Your task to perform on an android device: delete browsing data in the chrome app Image 0: 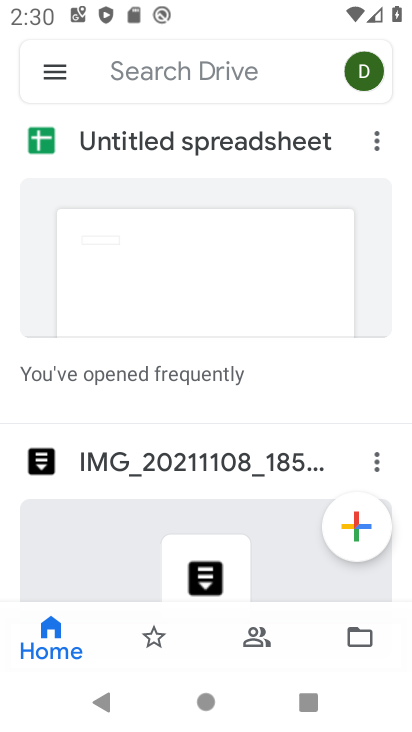
Step 0: press home button
Your task to perform on an android device: delete browsing data in the chrome app Image 1: 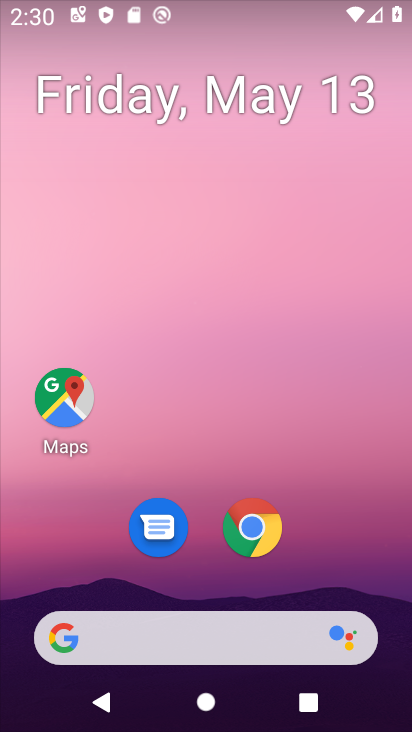
Step 1: click (254, 525)
Your task to perform on an android device: delete browsing data in the chrome app Image 2: 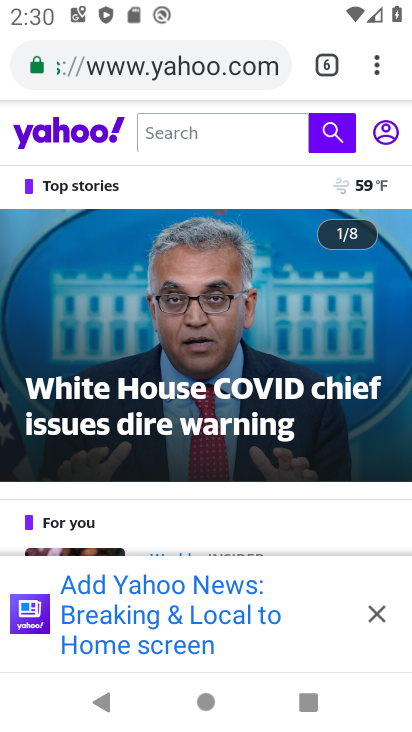
Step 2: click (363, 50)
Your task to perform on an android device: delete browsing data in the chrome app Image 3: 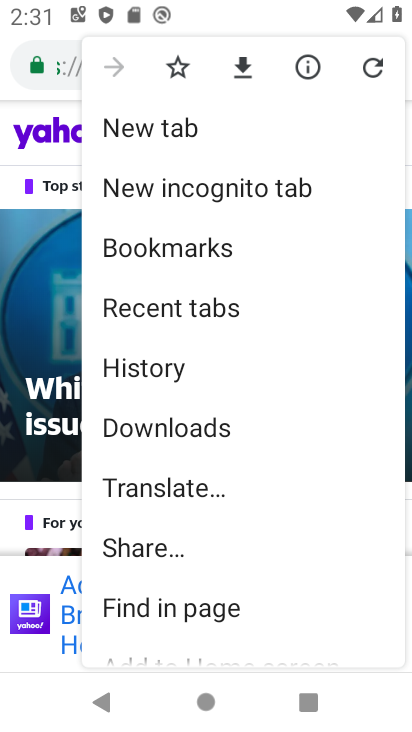
Step 3: drag from (189, 618) to (274, 219)
Your task to perform on an android device: delete browsing data in the chrome app Image 4: 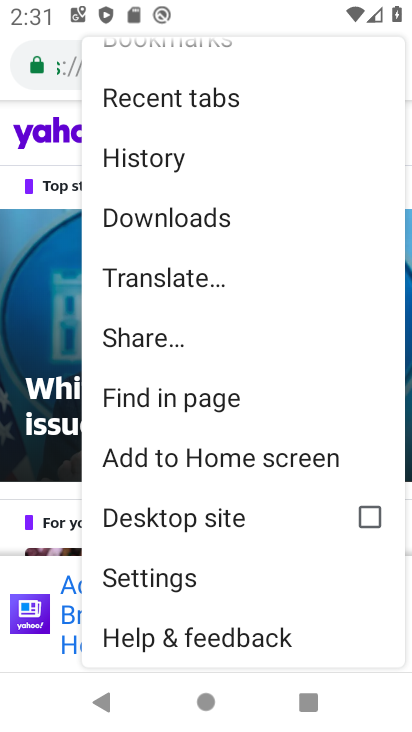
Step 4: drag from (228, 593) to (266, 256)
Your task to perform on an android device: delete browsing data in the chrome app Image 5: 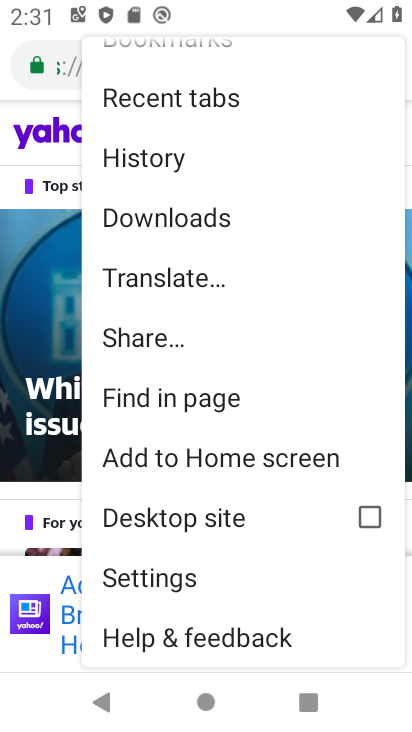
Step 5: click (169, 150)
Your task to perform on an android device: delete browsing data in the chrome app Image 6: 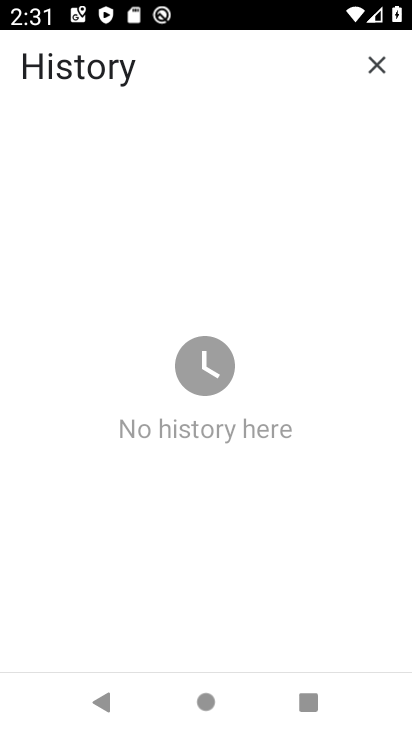
Step 6: task complete